Your task to perform on an android device: turn off improve location accuracy Image 0: 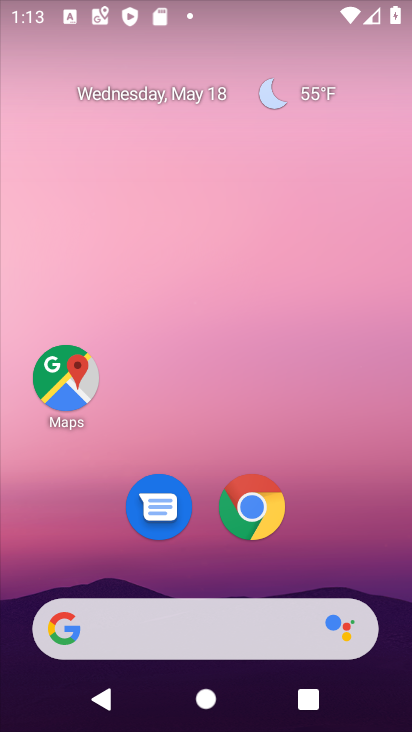
Step 0: drag from (394, 608) to (325, 74)
Your task to perform on an android device: turn off improve location accuracy Image 1: 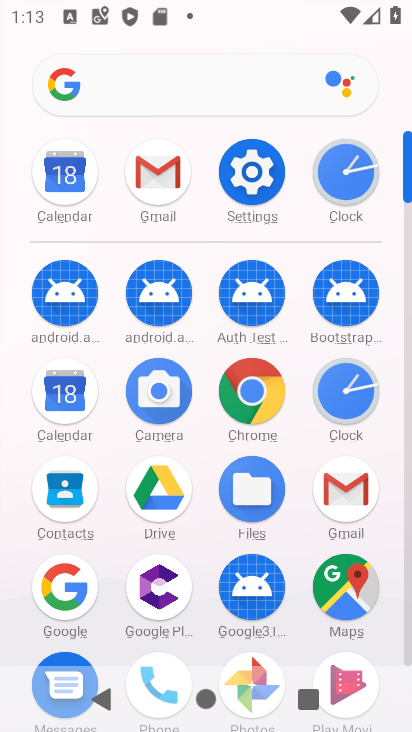
Step 1: click (406, 646)
Your task to perform on an android device: turn off improve location accuracy Image 2: 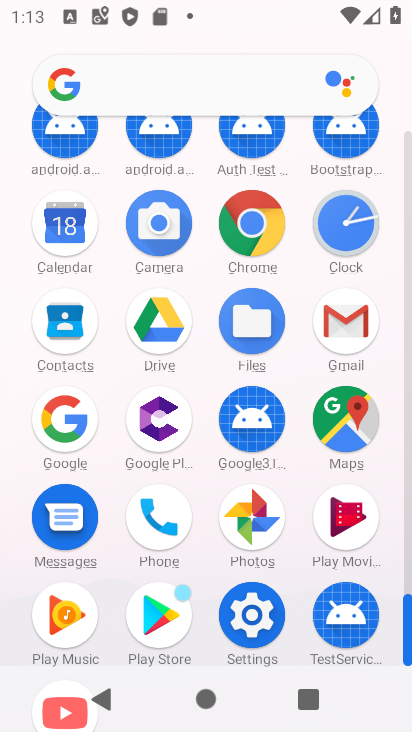
Step 2: click (252, 619)
Your task to perform on an android device: turn off improve location accuracy Image 3: 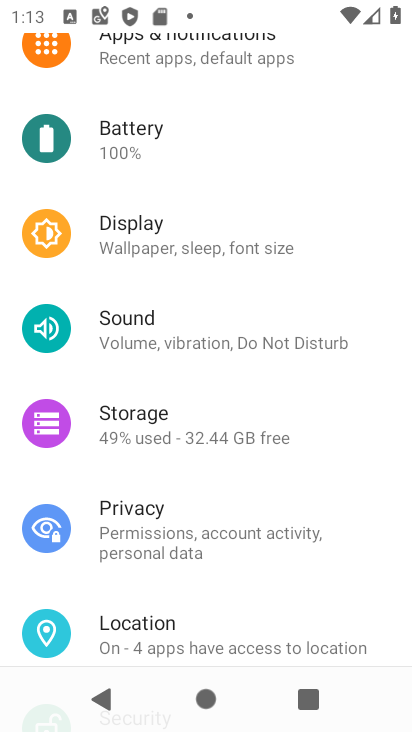
Step 3: click (171, 645)
Your task to perform on an android device: turn off improve location accuracy Image 4: 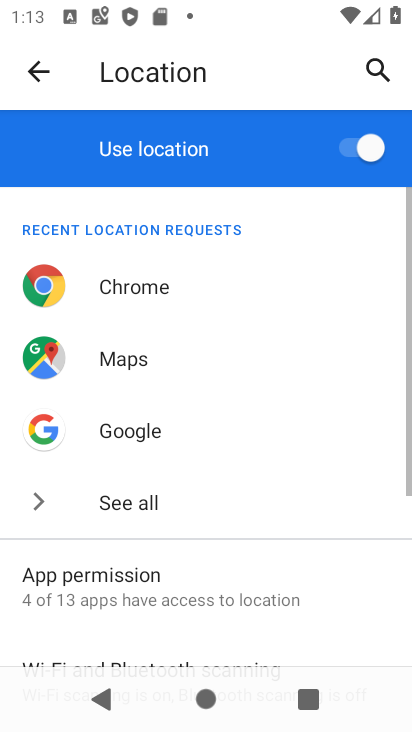
Step 4: drag from (291, 615) to (242, 147)
Your task to perform on an android device: turn off improve location accuracy Image 5: 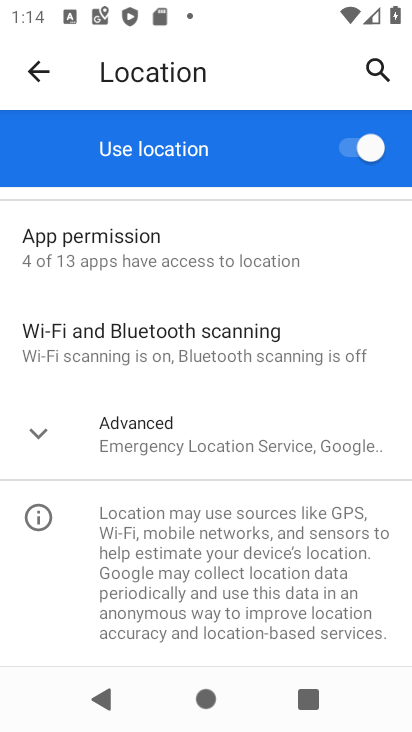
Step 5: click (45, 441)
Your task to perform on an android device: turn off improve location accuracy Image 6: 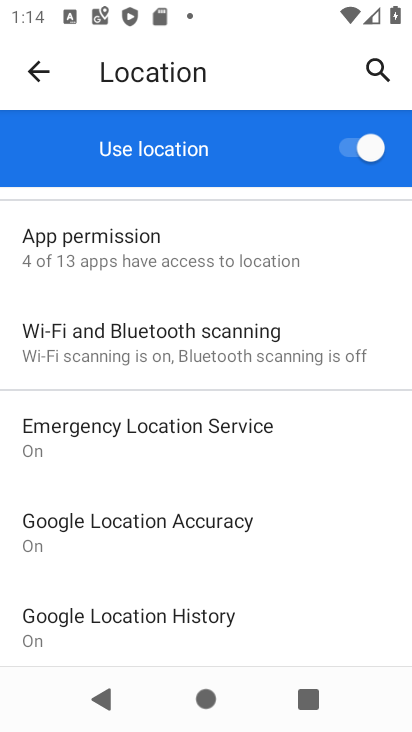
Step 6: click (95, 528)
Your task to perform on an android device: turn off improve location accuracy Image 7: 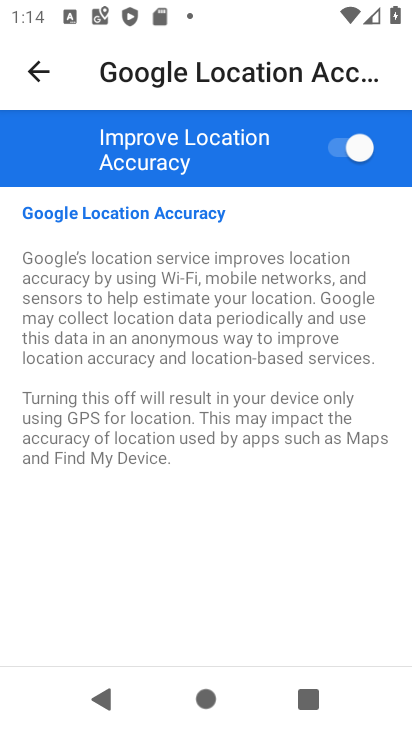
Step 7: click (340, 149)
Your task to perform on an android device: turn off improve location accuracy Image 8: 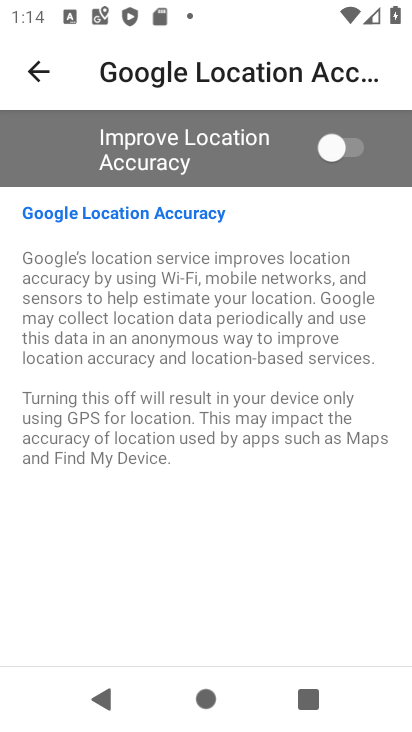
Step 8: task complete